Your task to perform on an android device: set an alarm Image 0: 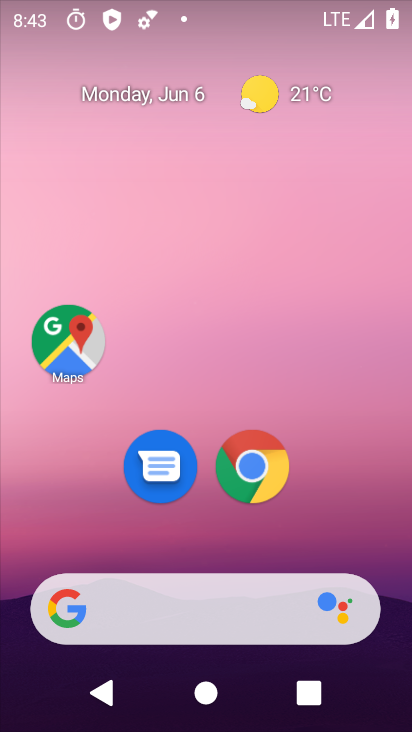
Step 0: click (395, 583)
Your task to perform on an android device: set an alarm Image 1: 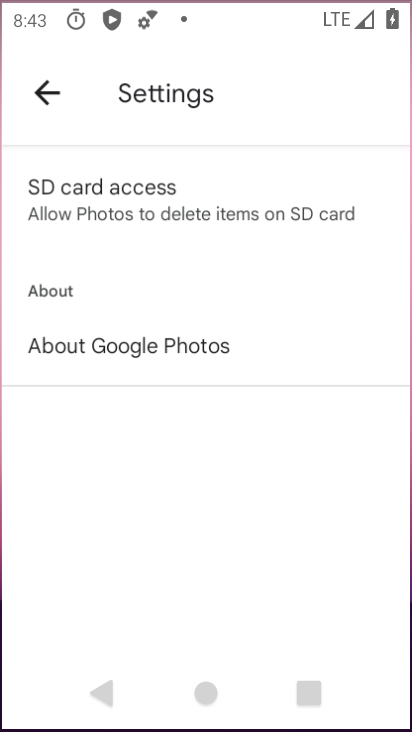
Step 1: drag from (205, 514) to (406, 29)
Your task to perform on an android device: set an alarm Image 2: 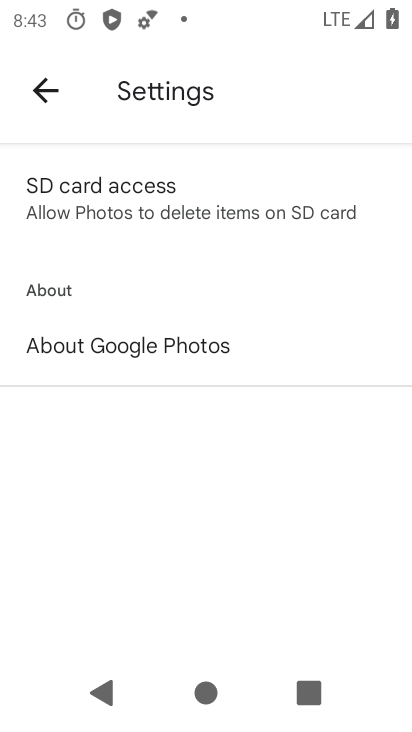
Step 2: drag from (137, 527) to (246, 164)
Your task to perform on an android device: set an alarm Image 3: 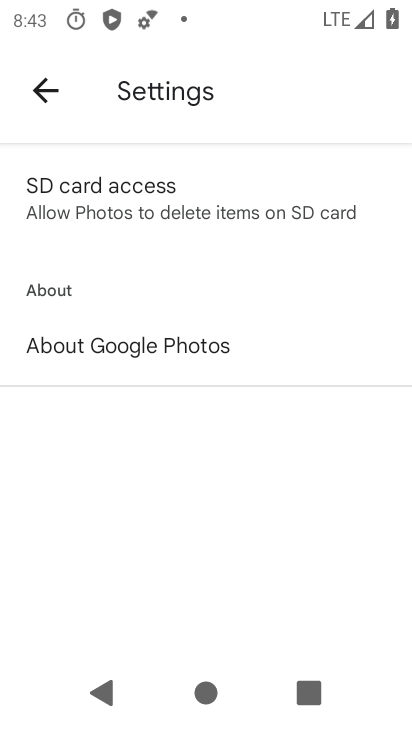
Step 3: press home button
Your task to perform on an android device: set an alarm Image 4: 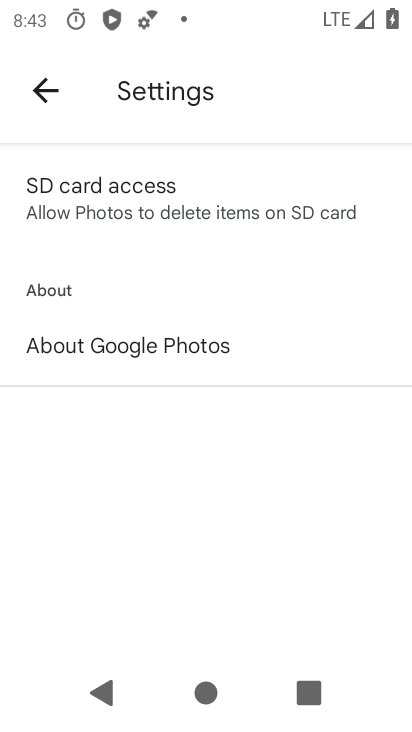
Step 4: press home button
Your task to perform on an android device: set an alarm Image 5: 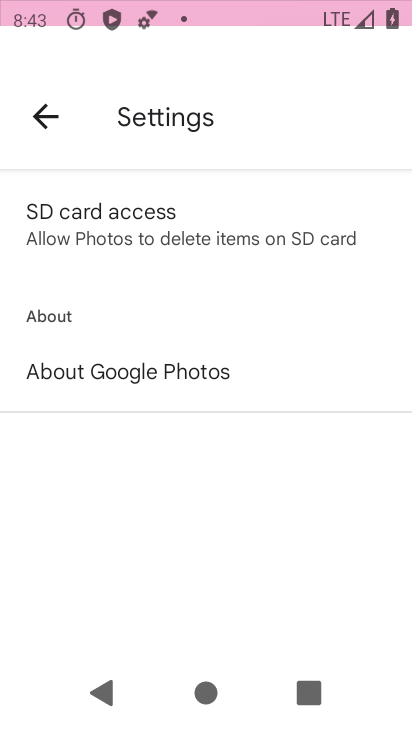
Step 5: click (206, 0)
Your task to perform on an android device: set an alarm Image 6: 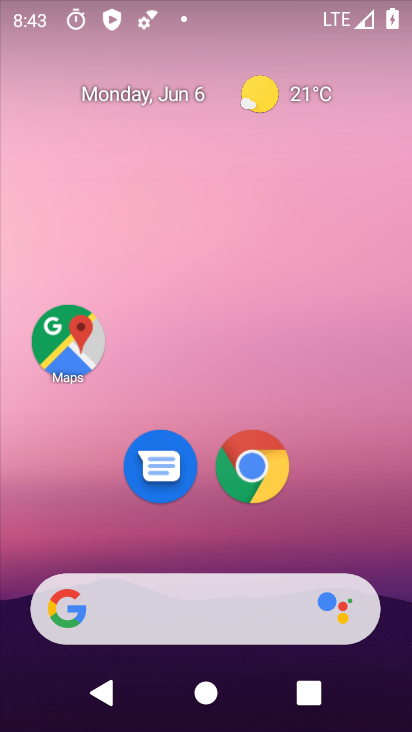
Step 6: drag from (235, 326) to (259, 79)
Your task to perform on an android device: set an alarm Image 7: 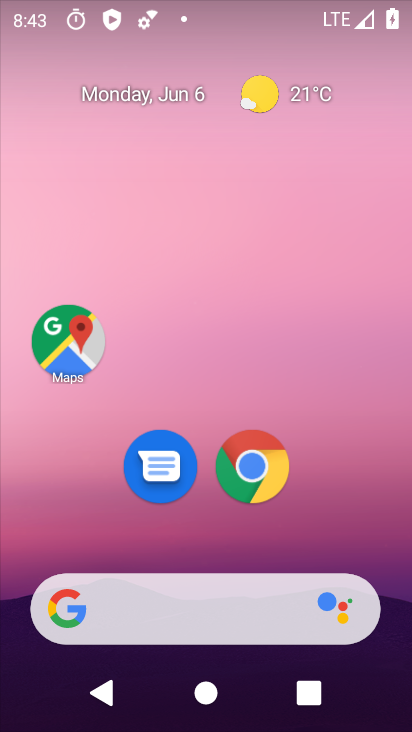
Step 7: drag from (222, 497) to (240, 8)
Your task to perform on an android device: set an alarm Image 8: 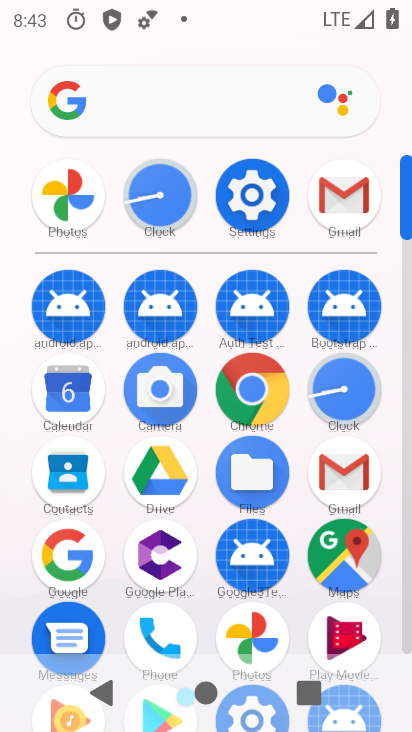
Step 8: click (366, 403)
Your task to perform on an android device: set an alarm Image 9: 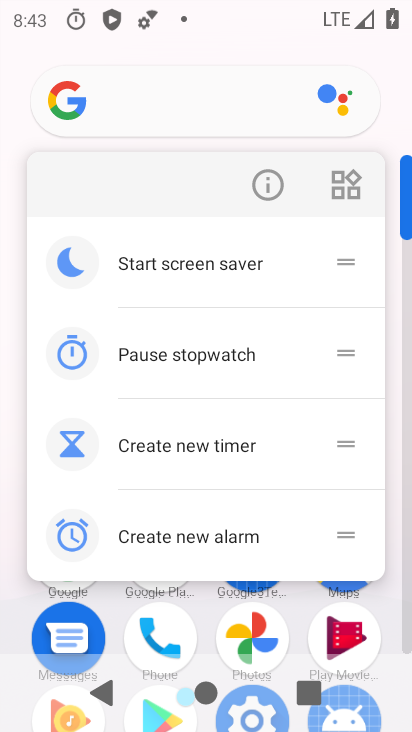
Step 9: click (280, 202)
Your task to perform on an android device: set an alarm Image 10: 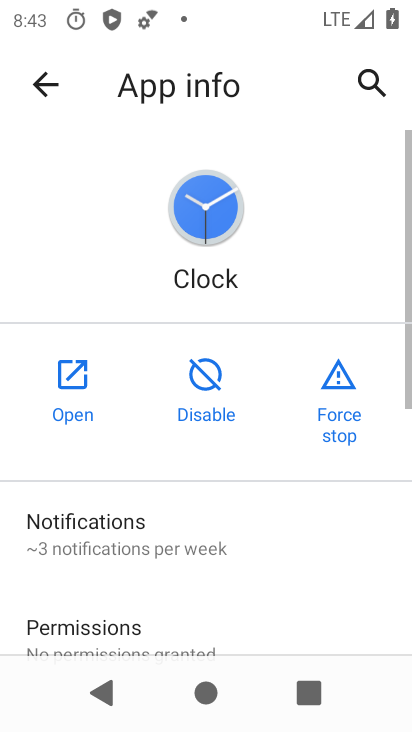
Step 10: click (63, 360)
Your task to perform on an android device: set an alarm Image 11: 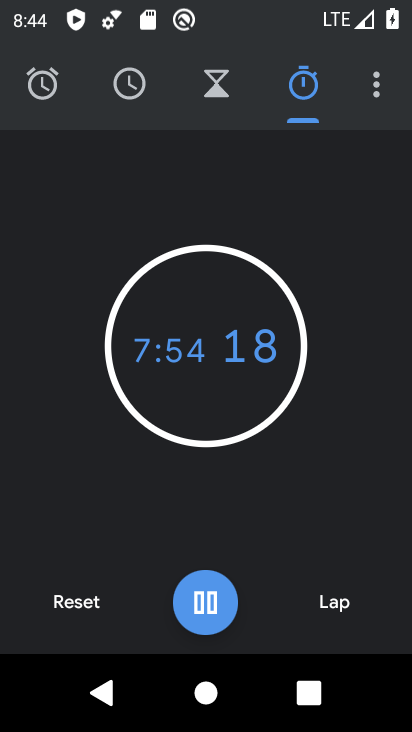
Step 11: click (63, 85)
Your task to perform on an android device: set an alarm Image 12: 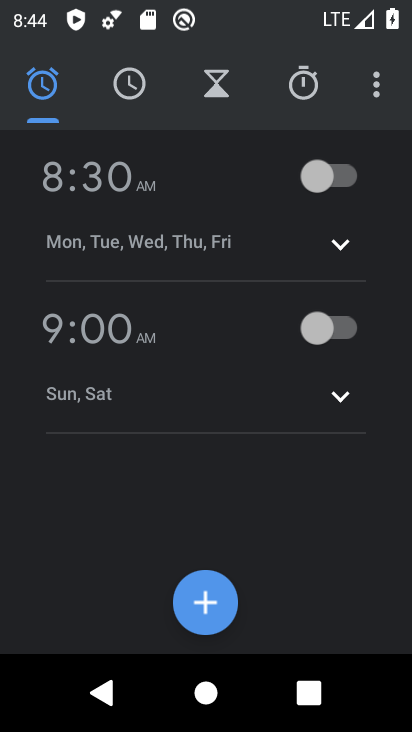
Step 12: click (305, 166)
Your task to perform on an android device: set an alarm Image 13: 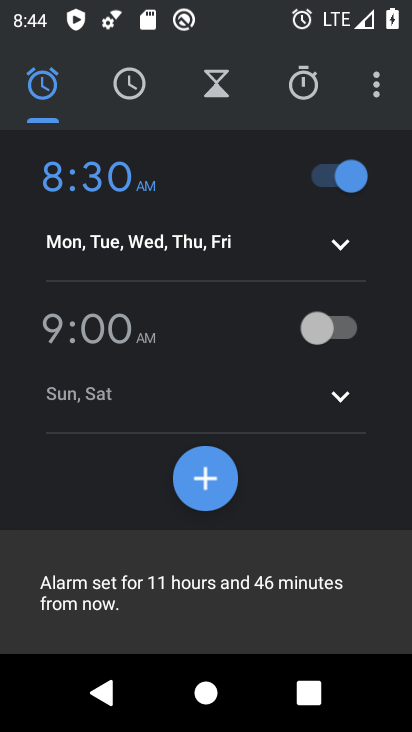
Step 13: task complete